Your task to perform on an android device: Go to Yahoo.com Image 0: 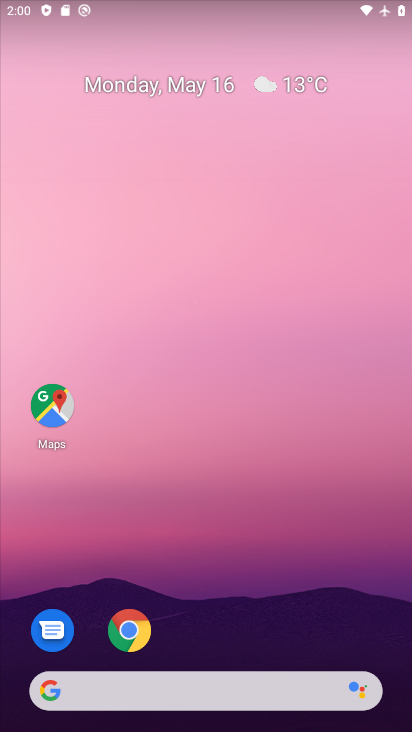
Step 0: click (125, 630)
Your task to perform on an android device: Go to Yahoo.com Image 1: 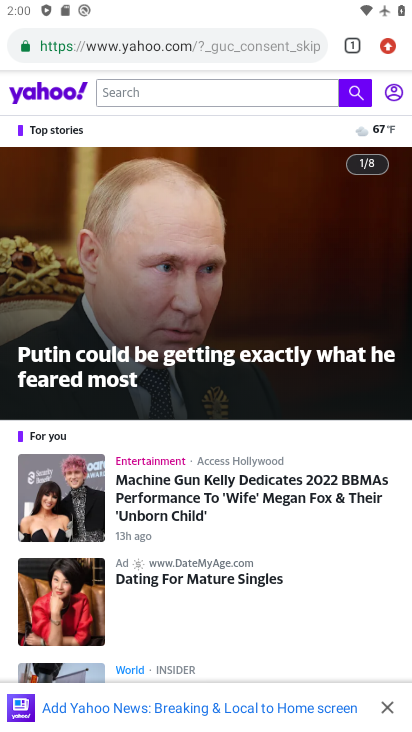
Step 1: task complete